Your task to perform on an android device: all mails in gmail Image 0: 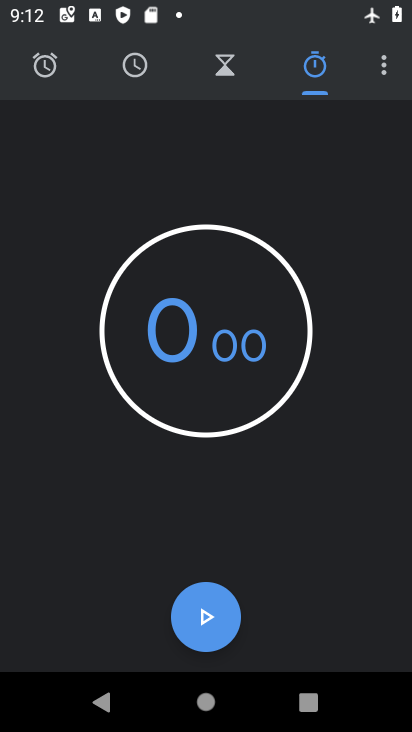
Step 0: press home button
Your task to perform on an android device: all mails in gmail Image 1: 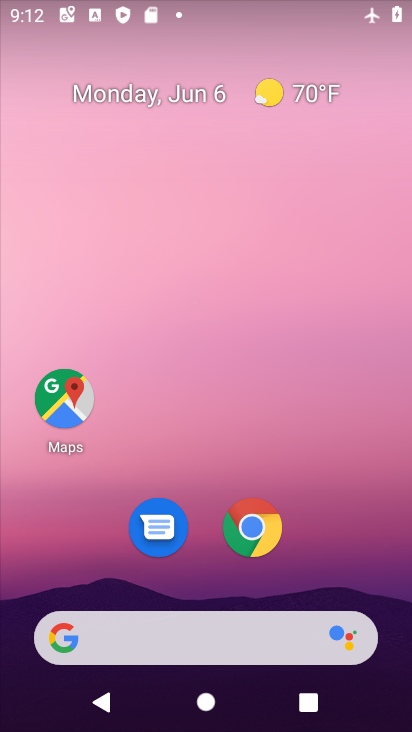
Step 1: drag from (253, 512) to (312, 260)
Your task to perform on an android device: all mails in gmail Image 2: 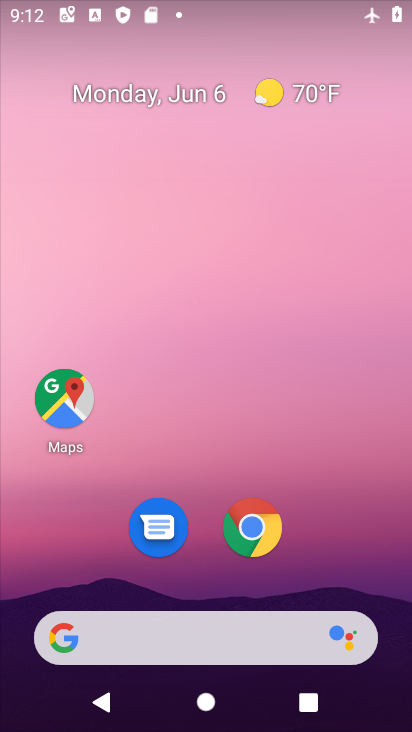
Step 2: drag from (229, 603) to (264, 185)
Your task to perform on an android device: all mails in gmail Image 3: 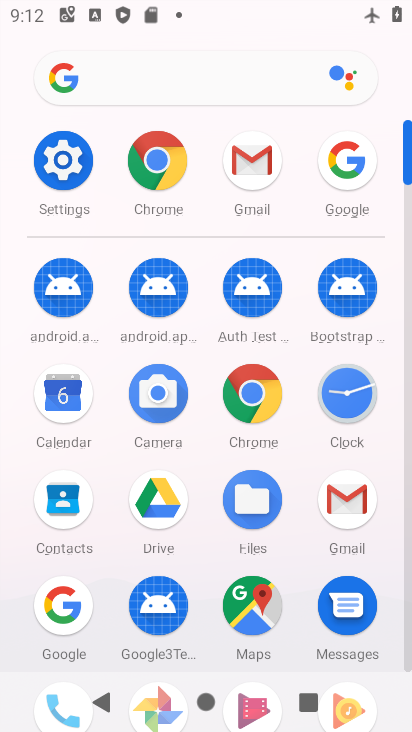
Step 3: click (358, 510)
Your task to perform on an android device: all mails in gmail Image 4: 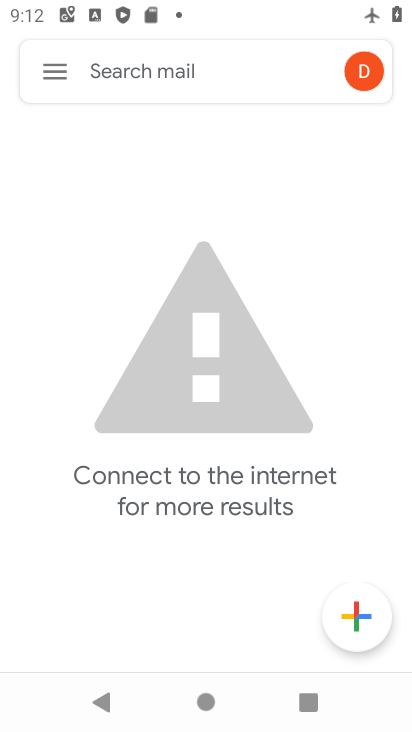
Step 4: task complete